Your task to perform on an android device: Go to Wikipedia Image 0: 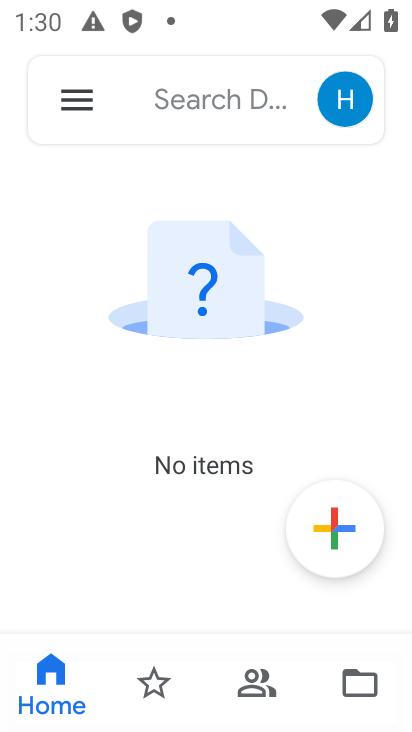
Step 0: press home button
Your task to perform on an android device: Go to Wikipedia Image 1: 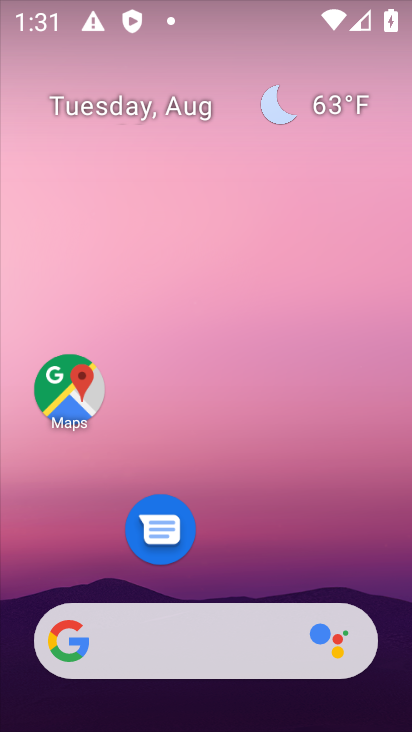
Step 1: drag from (249, 580) to (235, 126)
Your task to perform on an android device: Go to Wikipedia Image 2: 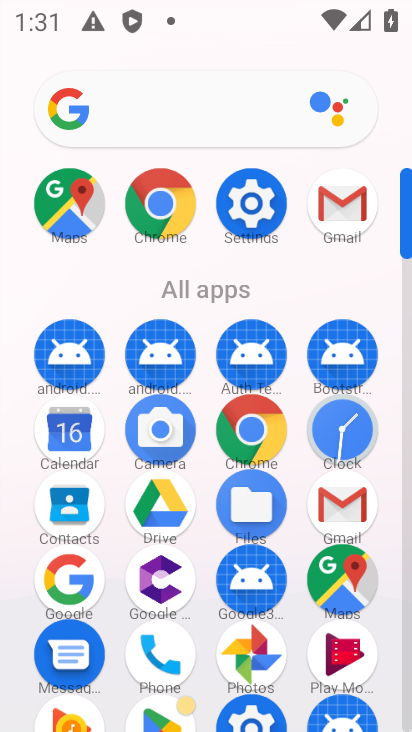
Step 2: click (181, 198)
Your task to perform on an android device: Go to Wikipedia Image 3: 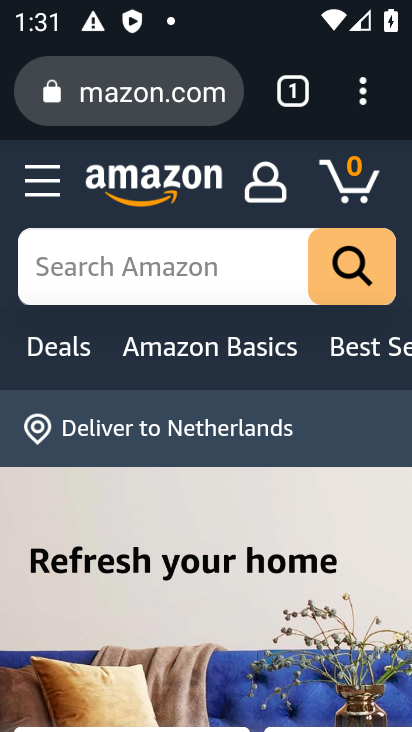
Step 3: click (147, 113)
Your task to perform on an android device: Go to Wikipedia Image 4: 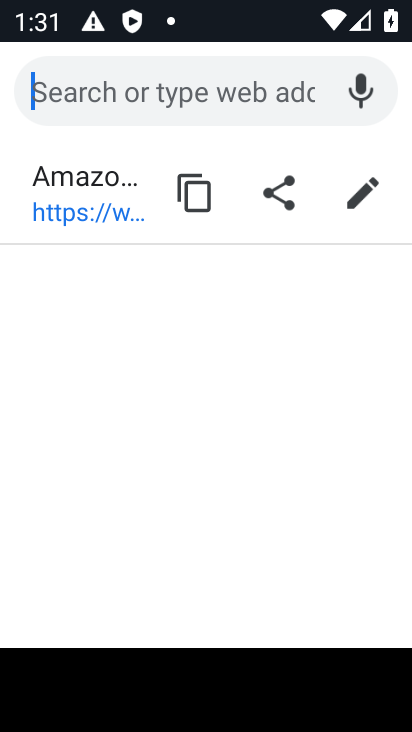
Step 4: type "wikipedia"
Your task to perform on an android device: Go to Wikipedia Image 5: 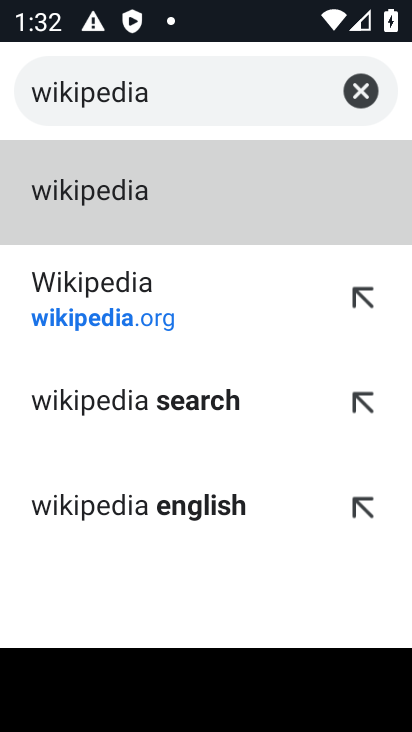
Step 5: click (85, 310)
Your task to perform on an android device: Go to Wikipedia Image 6: 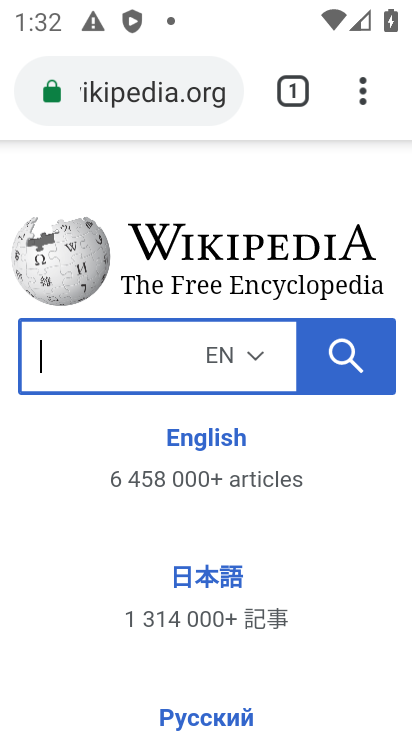
Step 6: task complete